Your task to perform on an android device: What is the recent news? Image 0: 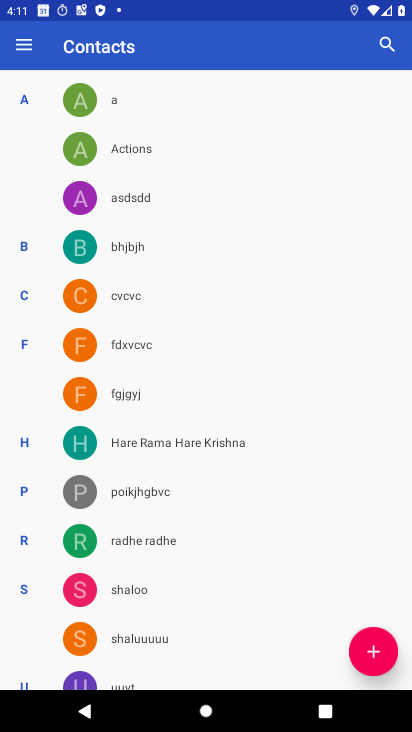
Step 0: press home button
Your task to perform on an android device: What is the recent news? Image 1: 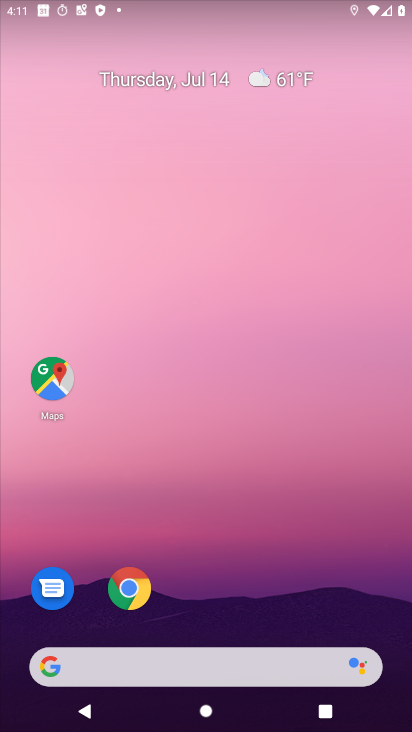
Step 1: drag from (180, 661) to (251, 156)
Your task to perform on an android device: What is the recent news? Image 2: 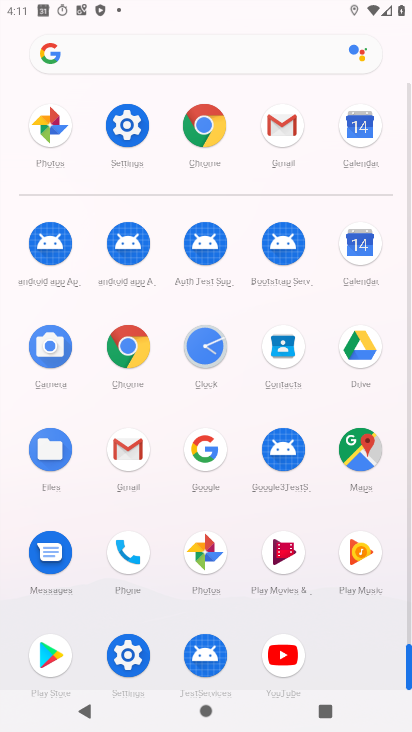
Step 2: click (203, 447)
Your task to perform on an android device: What is the recent news? Image 3: 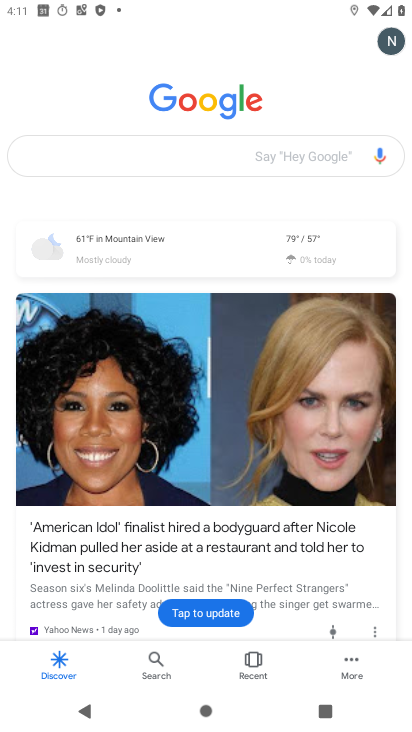
Step 3: click (196, 156)
Your task to perform on an android device: What is the recent news? Image 4: 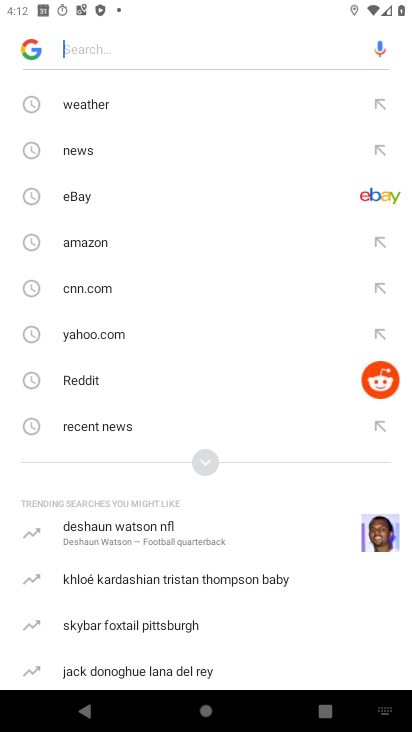
Step 4: type "recent news"
Your task to perform on an android device: What is the recent news? Image 5: 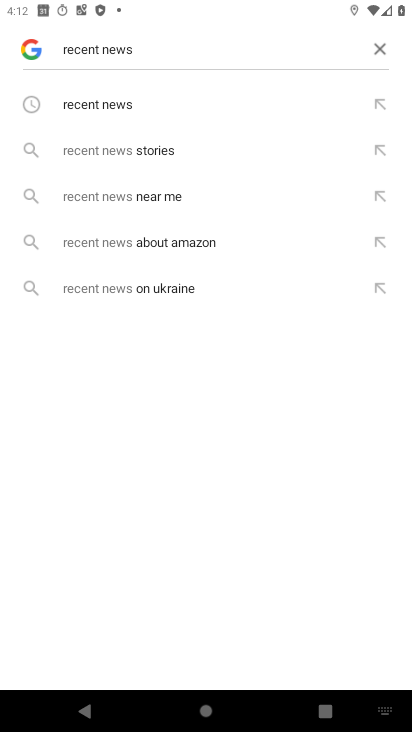
Step 5: click (82, 106)
Your task to perform on an android device: What is the recent news? Image 6: 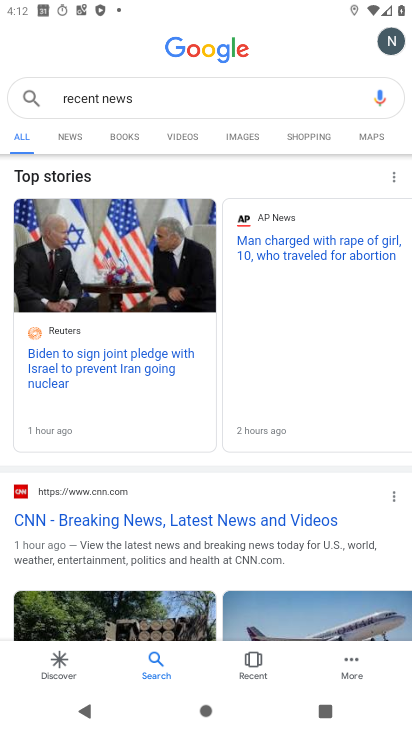
Step 6: click (103, 368)
Your task to perform on an android device: What is the recent news? Image 7: 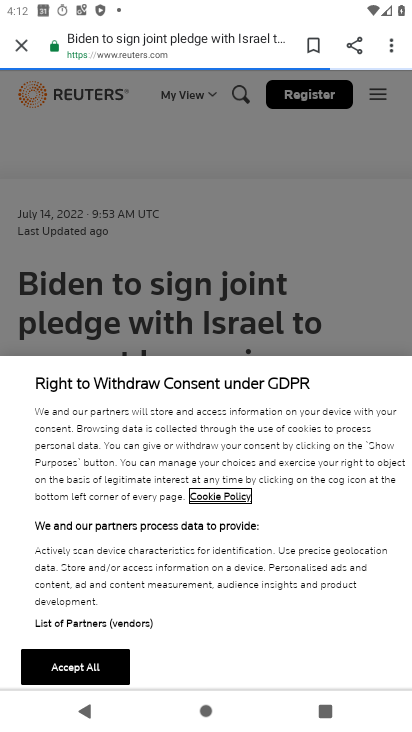
Step 7: task complete